Your task to perform on an android device: toggle data saver in the chrome app Image 0: 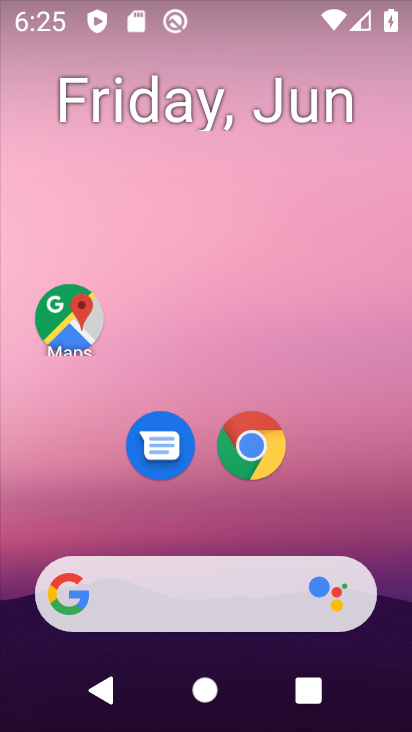
Step 0: drag from (202, 458) to (202, 166)
Your task to perform on an android device: toggle data saver in the chrome app Image 1: 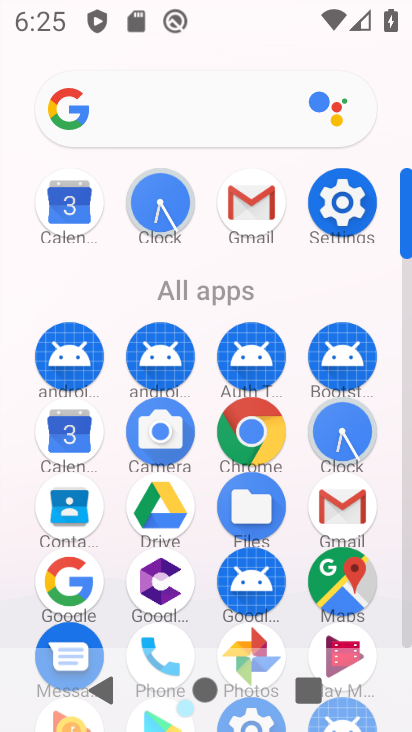
Step 1: click (250, 428)
Your task to perform on an android device: toggle data saver in the chrome app Image 2: 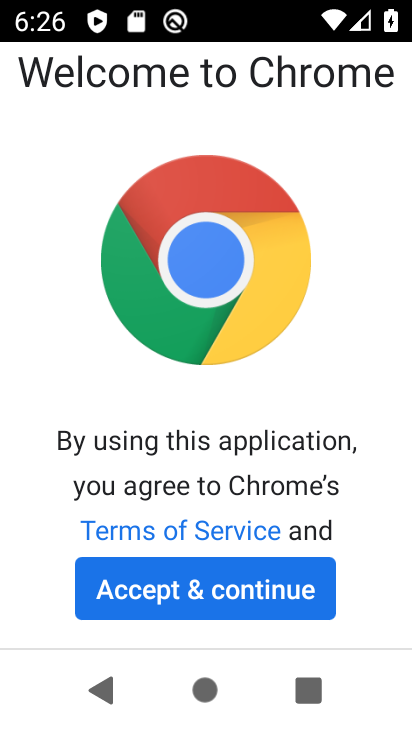
Step 2: click (156, 588)
Your task to perform on an android device: toggle data saver in the chrome app Image 3: 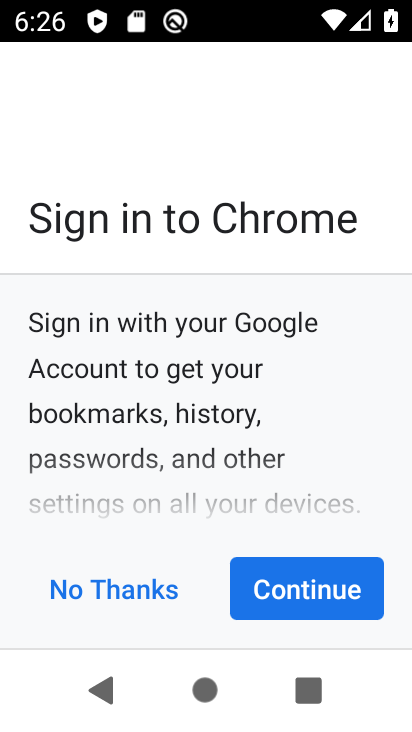
Step 3: click (272, 585)
Your task to perform on an android device: toggle data saver in the chrome app Image 4: 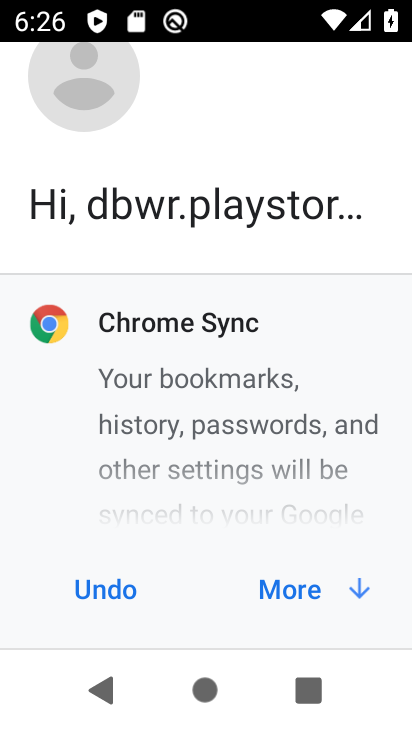
Step 4: click (272, 585)
Your task to perform on an android device: toggle data saver in the chrome app Image 5: 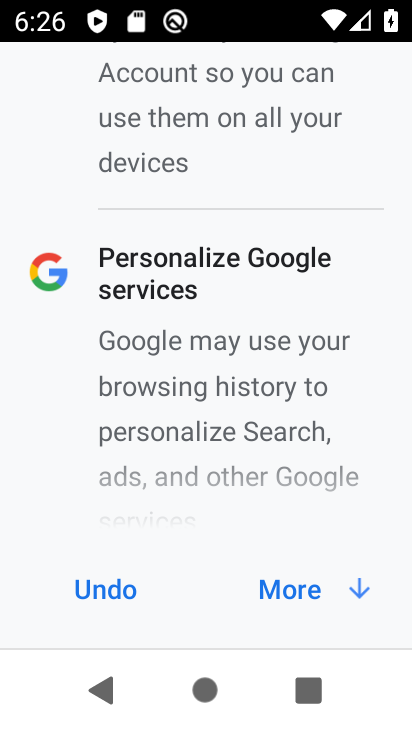
Step 5: click (276, 601)
Your task to perform on an android device: toggle data saver in the chrome app Image 6: 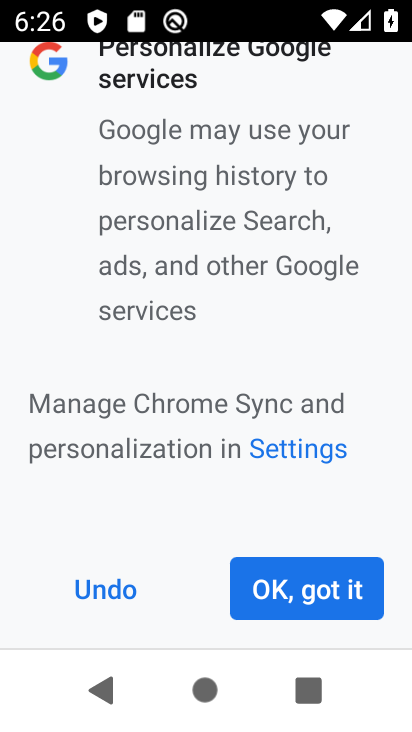
Step 6: click (276, 601)
Your task to perform on an android device: toggle data saver in the chrome app Image 7: 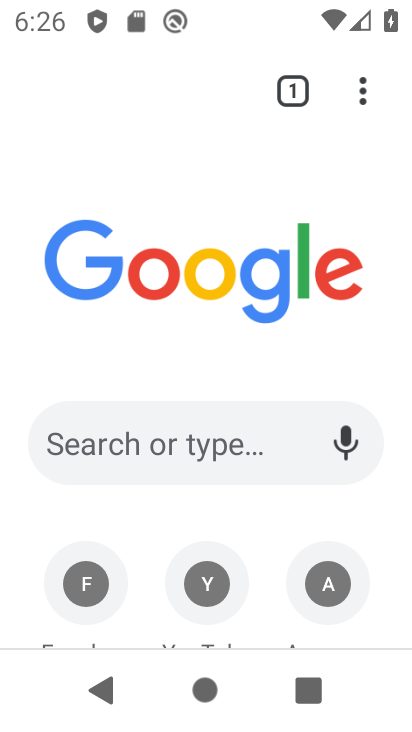
Step 7: click (365, 93)
Your task to perform on an android device: toggle data saver in the chrome app Image 8: 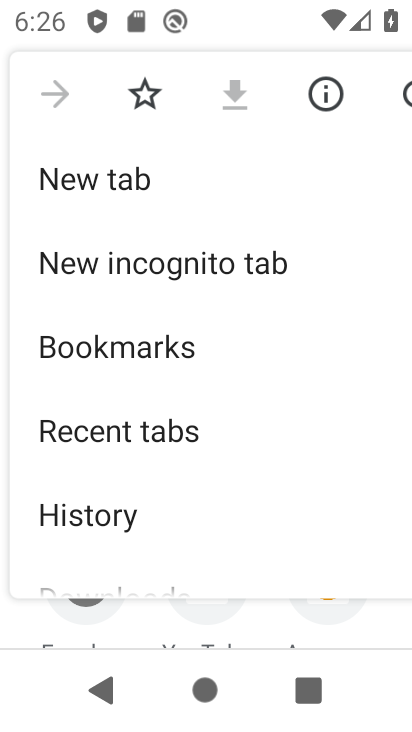
Step 8: drag from (136, 508) to (132, 353)
Your task to perform on an android device: toggle data saver in the chrome app Image 9: 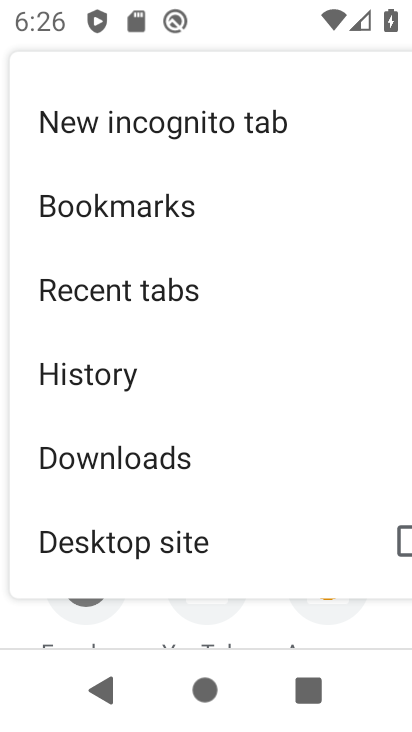
Step 9: drag from (142, 541) to (125, 437)
Your task to perform on an android device: toggle data saver in the chrome app Image 10: 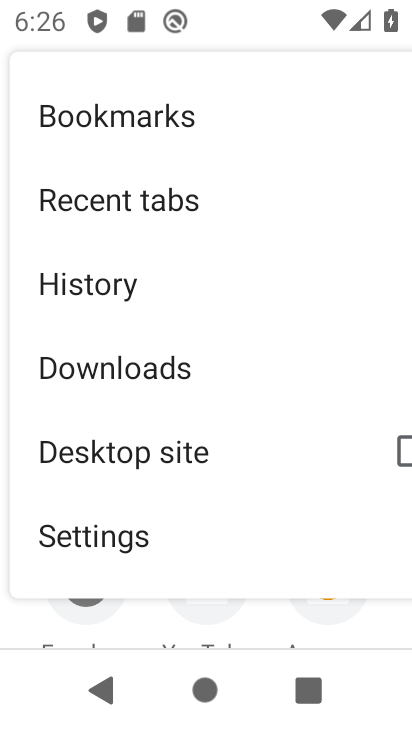
Step 10: click (140, 543)
Your task to perform on an android device: toggle data saver in the chrome app Image 11: 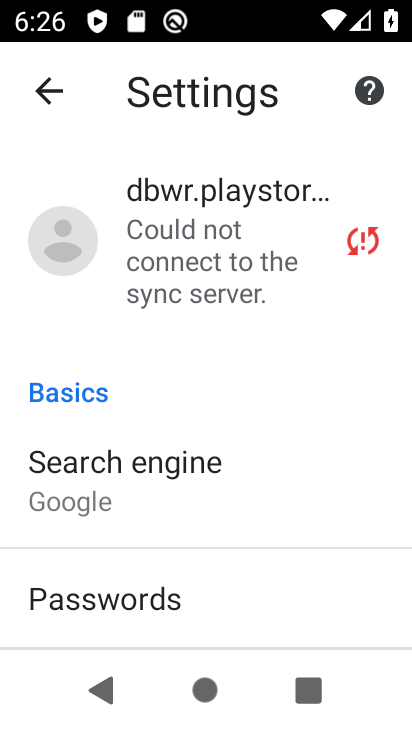
Step 11: drag from (199, 504) to (197, 344)
Your task to perform on an android device: toggle data saver in the chrome app Image 12: 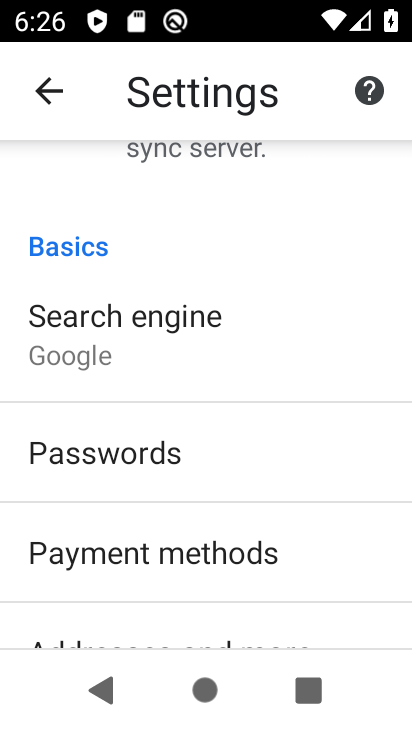
Step 12: drag from (202, 535) to (168, 284)
Your task to perform on an android device: toggle data saver in the chrome app Image 13: 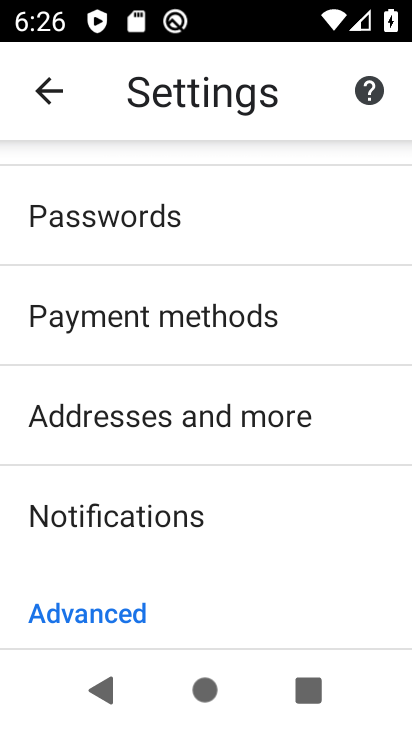
Step 13: drag from (176, 573) to (195, 384)
Your task to perform on an android device: toggle data saver in the chrome app Image 14: 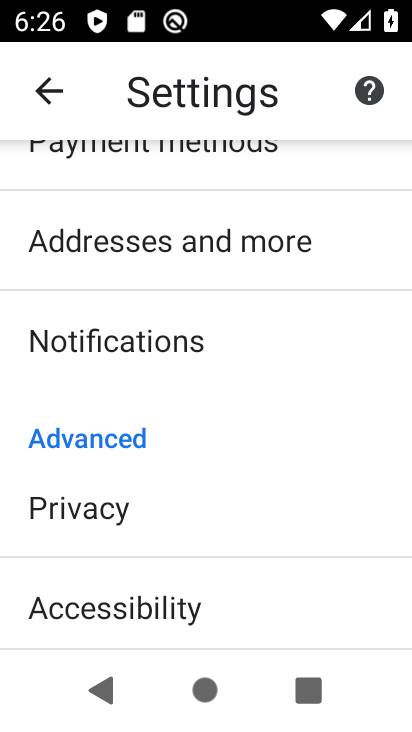
Step 14: drag from (175, 584) to (159, 373)
Your task to perform on an android device: toggle data saver in the chrome app Image 15: 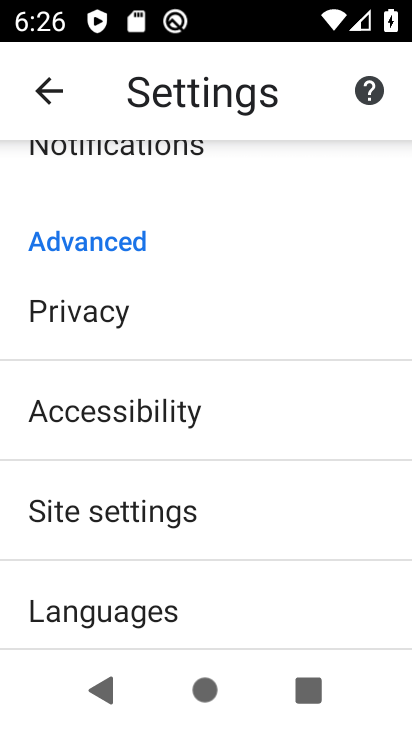
Step 15: click (126, 503)
Your task to perform on an android device: toggle data saver in the chrome app Image 16: 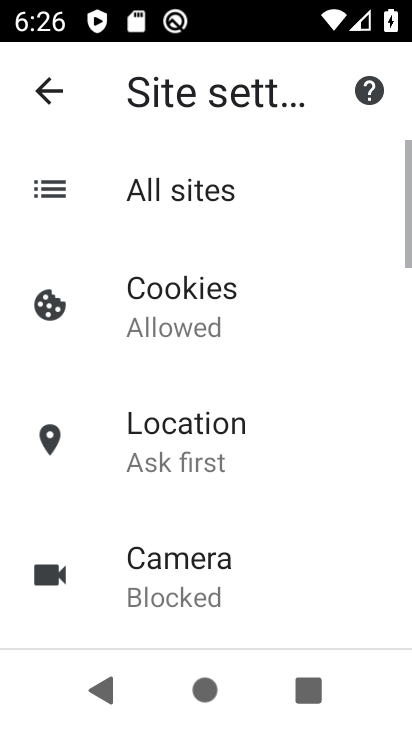
Step 16: drag from (160, 568) to (176, 309)
Your task to perform on an android device: toggle data saver in the chrome app Image 17: 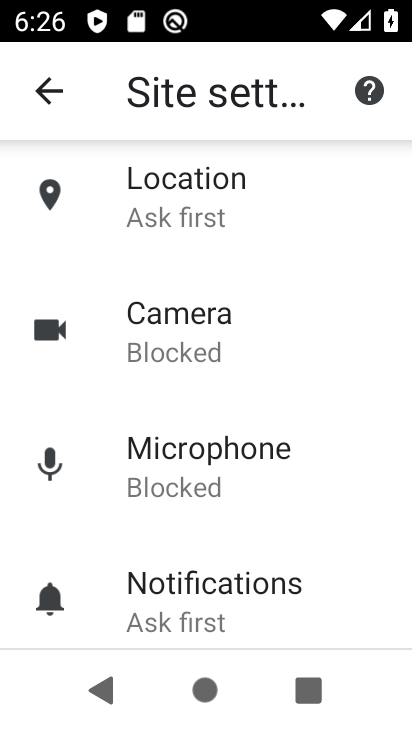
Step 17: drag from (215, 534) to (208, 345)
Your task to perform on an android device: toggle data saver in the chrome app Image 18: 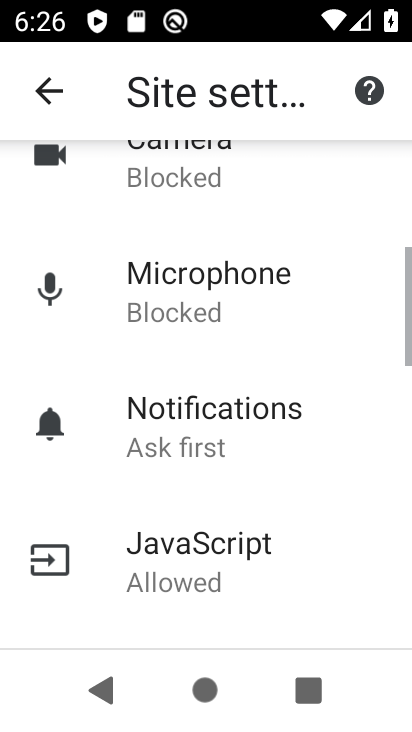
Step 18: drag from (216, 560) to (187, 355)
Your task to perform on an android device: toggle data saver in the chrome app Image 19: 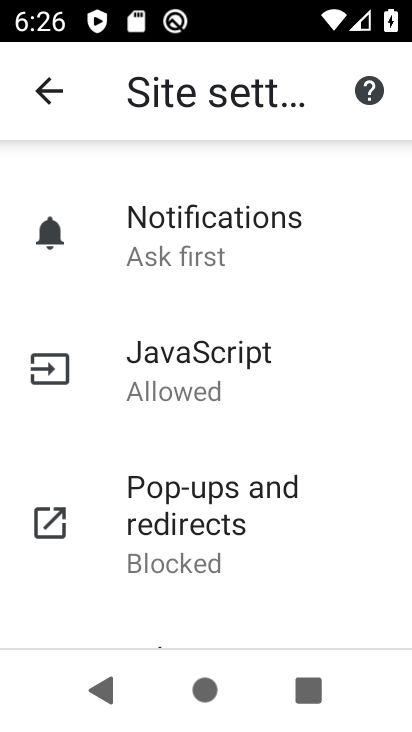
Step 19: click (43, 103)
Your task to perform on an android device: toggle data saver in the chrome app Image 20: 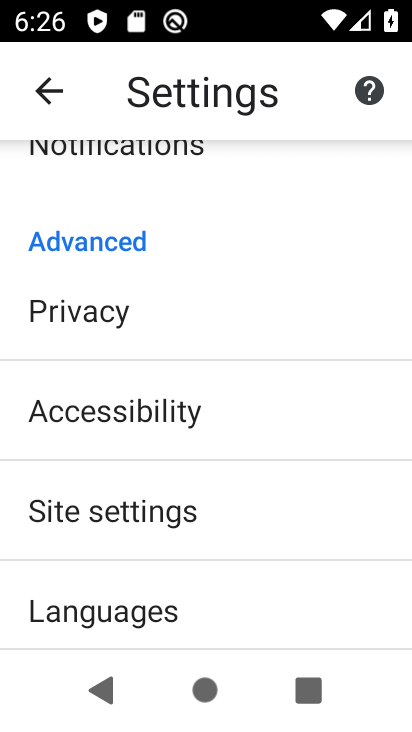
Step 20: drag from (154, 641) to (157, 369)
Your task to perform on an android device: toggle data saver in the chrome app Image 21: 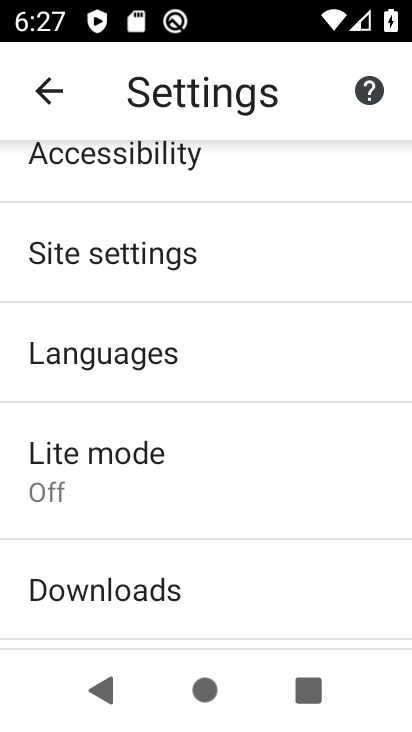
Step 21: click (121, 468)
Your task to perform on an android device: toggle data saver in the chrome app Image 22: 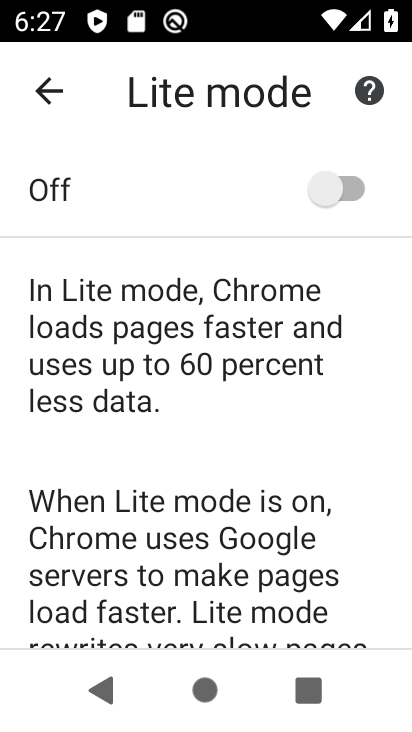
Step 22: click (341, 192)
Your task to perform on an android device: toggle data saver in the chrome app Image 23: 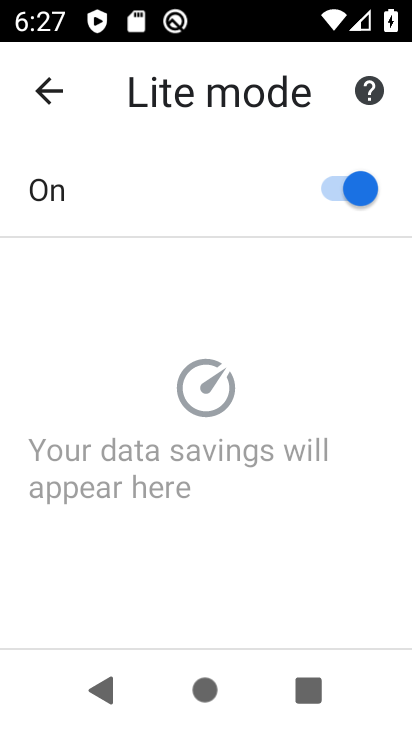
Step 23: task complete